Your task to perform on an android device: Search for Mexican restaurants on Maps Image 0: 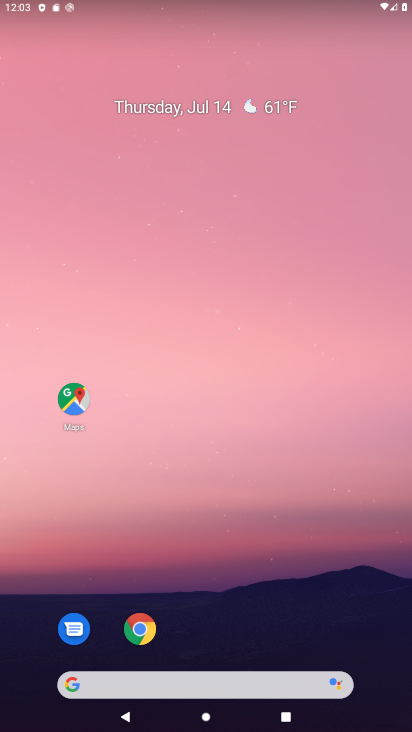
Step 0: click (222, 548)
Your task to perform on an android device: Search for Mexican restaurants on Maps Image 1: 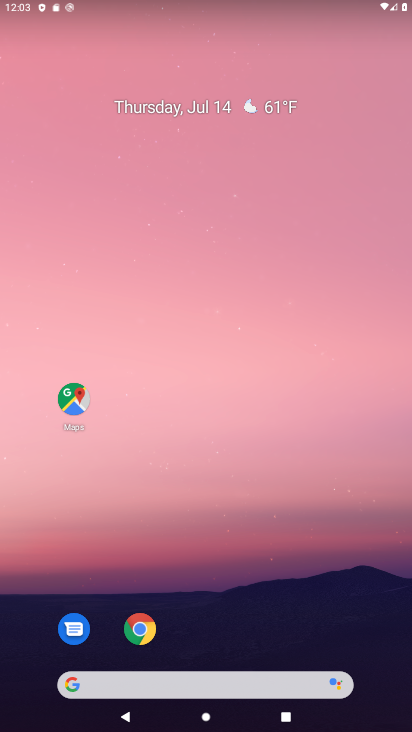
Step 1: click (73, 399)
Your task to perform on an android device: Search for Mexican restaurants on Maps Image 2: 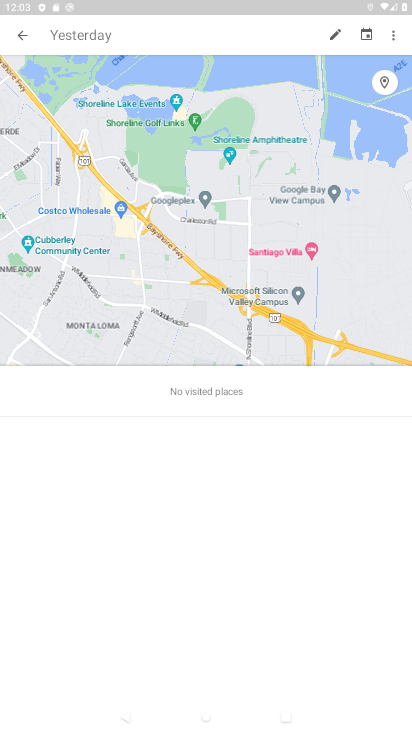
Step 2: click (16, 34)
Your task to perform on an android device: Search for Mexican restaurants on Maps Image 3: 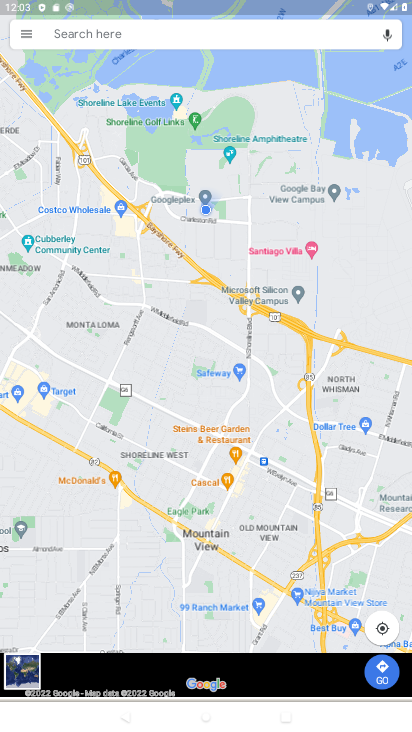
Step 3: click (91, 31)
Your task to perform on an android device: Search for Mexican restaurants on Maps Image 4: 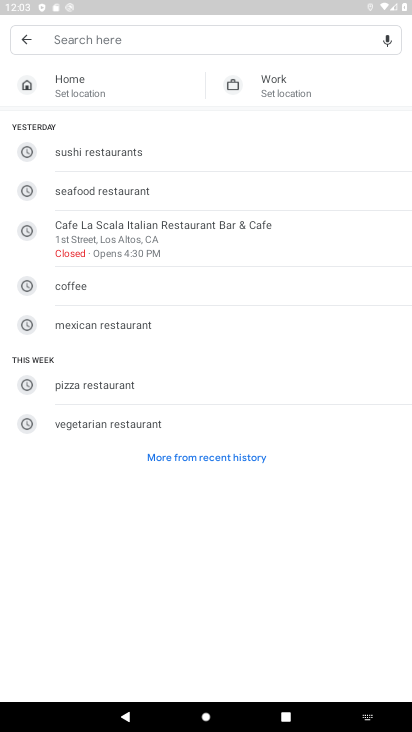
Step 4: click (116, 327)
Your task to perform on an android device: Search for Mexican restaurants on Maps Image 5: 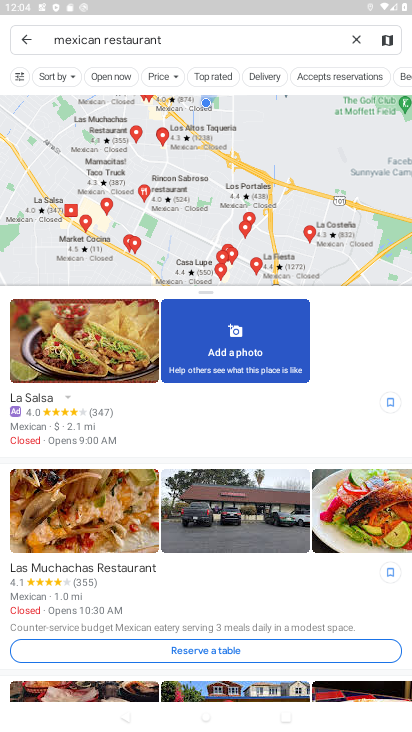
Step 5: task complete